Your task to perform on an android device: Open calendar and show me the first week of next month Image 0: 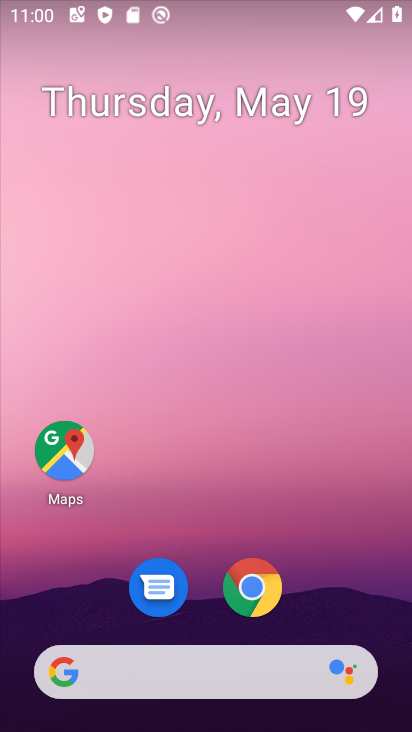
Step 0: drag from (222, 693) to (144, 132)
Your task to perform on an android device: Open calendar and show me the first week of next month Image 1: 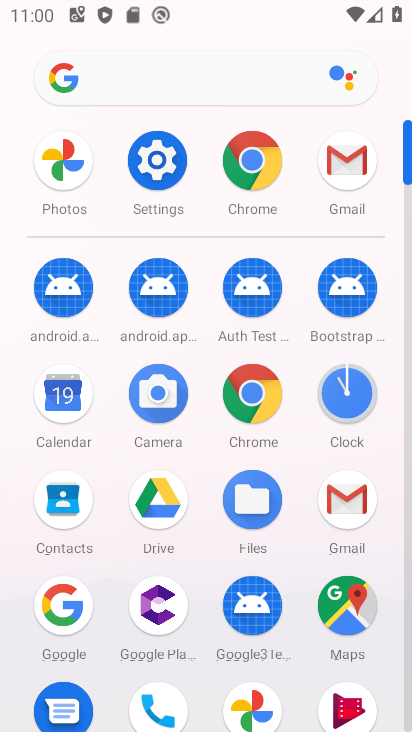
Step 1: click (73, 429)
Your task to perform on an android device: Open calendar and show me the first week of next month Image 2: 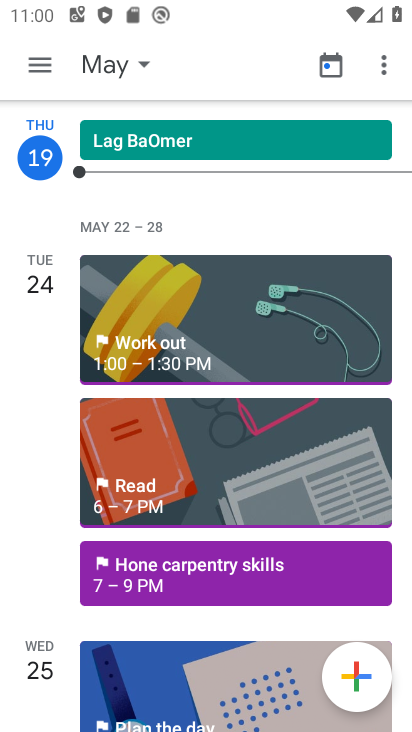
Step 2: click (39, 67)
Your task to perform on an android device: Open calendar and show me the first week of next month Image 3: 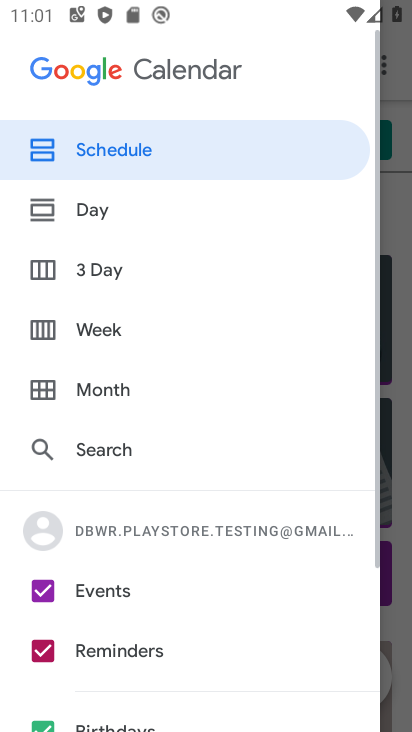
Step 3: click (103, 390)
Your task to perform on an android device: Open calendar and show me the first week of next month Image 4: 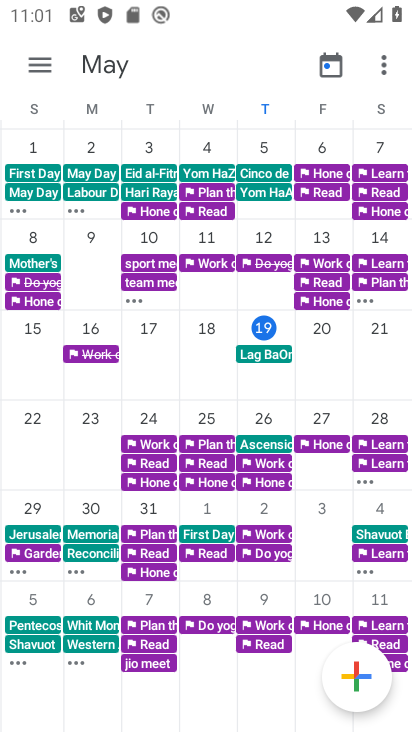
Step 4: task complete